Your task to perform on an android device: toggle location history Image 0: 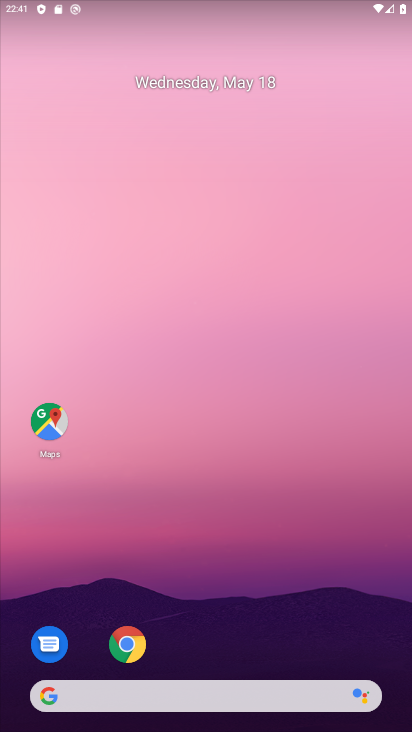
Step 0: drag from (264, 572) to (267, 74)
Your task to perform on an android device: toggle location history Image 1: 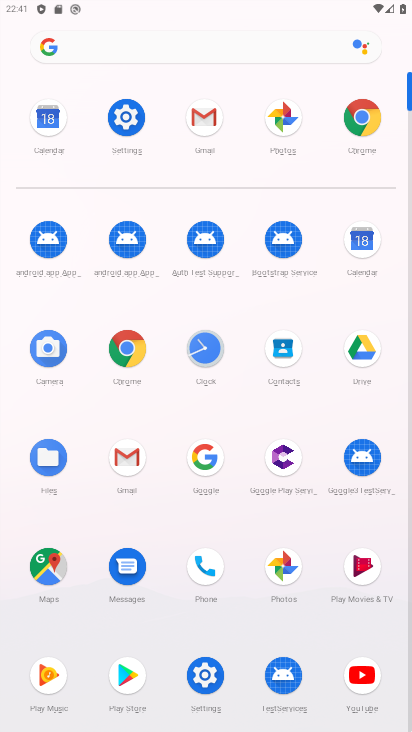
Step 1: click (124, 117)
Your task to perform on an android device: toggle location history Image 2: 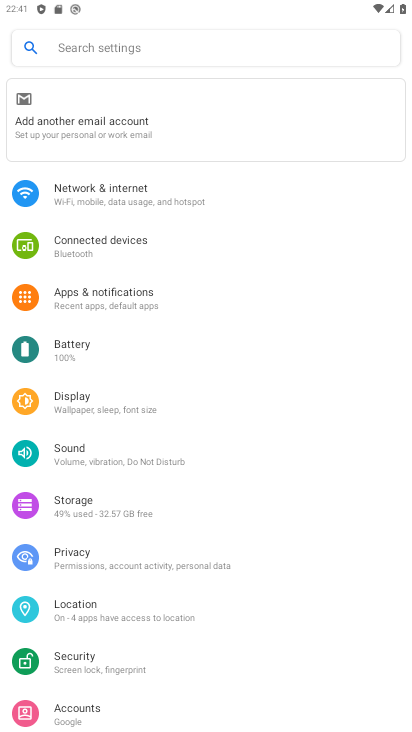
Step 2: drag from (192, 649) to (235, 409)
Your task to perform on an android device: toggle location history Image 3: 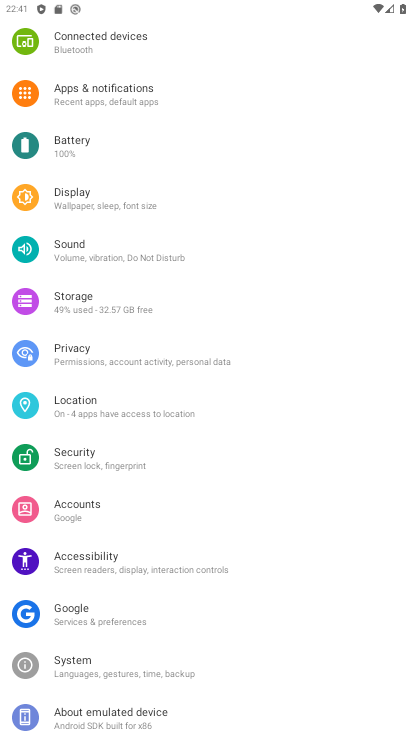
Step 3: drag from (183, 176) to (165, 567)
Your task to perform on an android device: toggle location history Image 4: 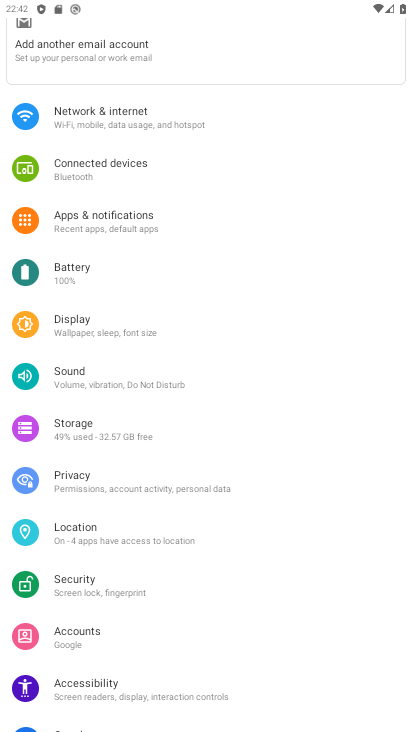
Step 4: click (135, 526)
Your task to perform on an android device: toggle location history Image 5: 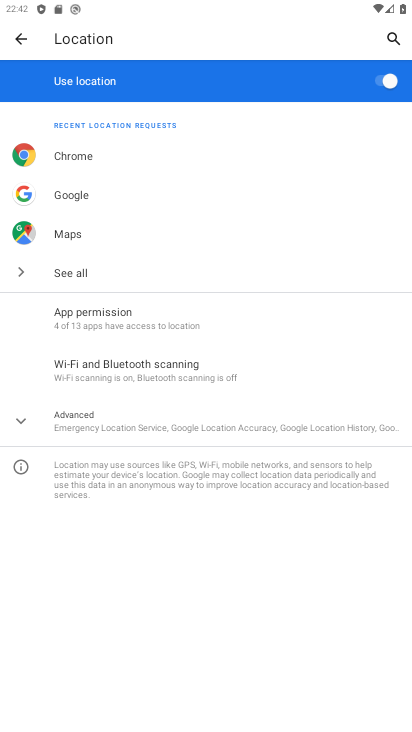
Step 5: click (127, 417)
Your task to perform on an android device: toggle location history Image 6: 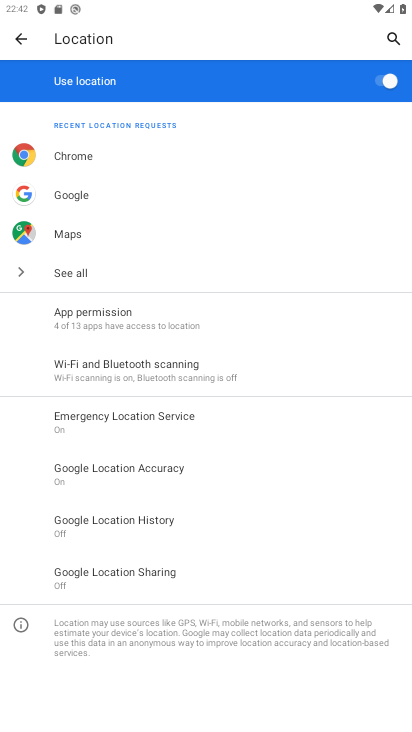
Step 6: click (152, 521)
Your task to perform on an android device: toggle location history Image 7: 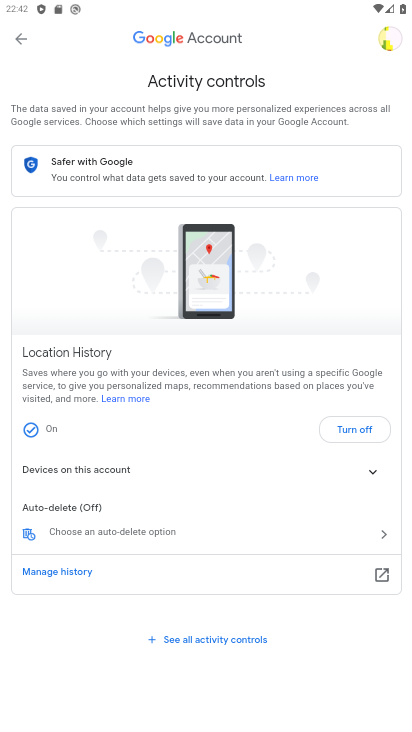
Step 7: click (373, 427)
Your task to perform on an android device: toggle location history Image 8: 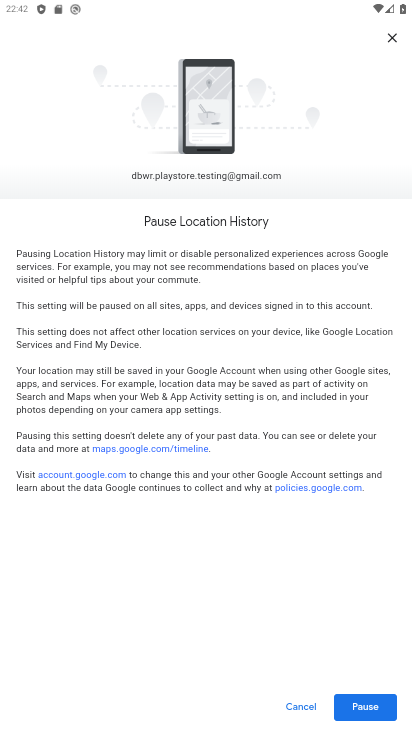
Step 8: drag from (254, 494) to (289, 237)
Your task to perform on an android device: toggle location history Image 9: 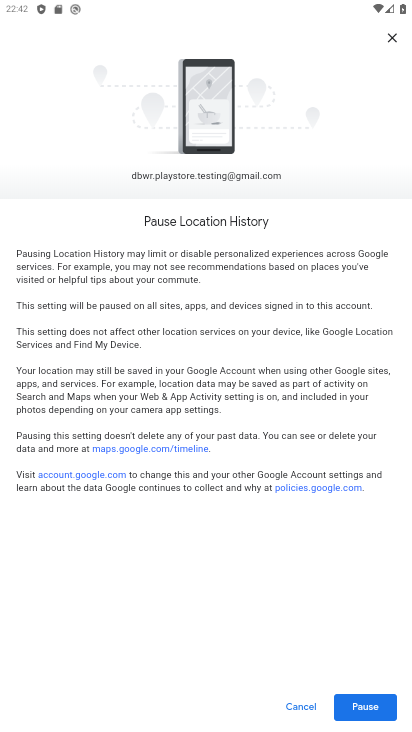
Step 9: click (384, 725)
Your task to perform on an android device: toggle location history Image 10: 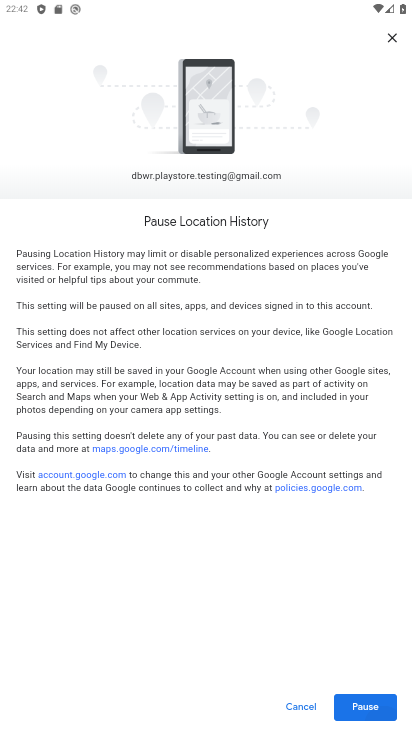
Step 10: click (374, 707)
Your task to perform on an android device: toggle location history Image 11: 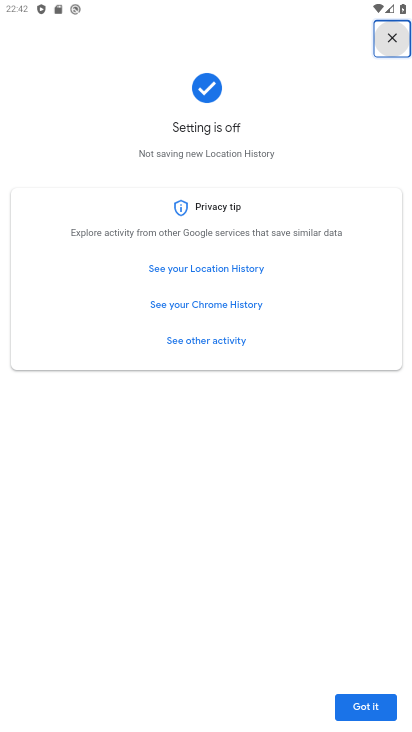
Step 11: task complete